Your task to perform on an android device: View the shopping cart on amazon.com. Search for usb-c on amazon.com, select the first entry, and add it to the cart. Image 0: 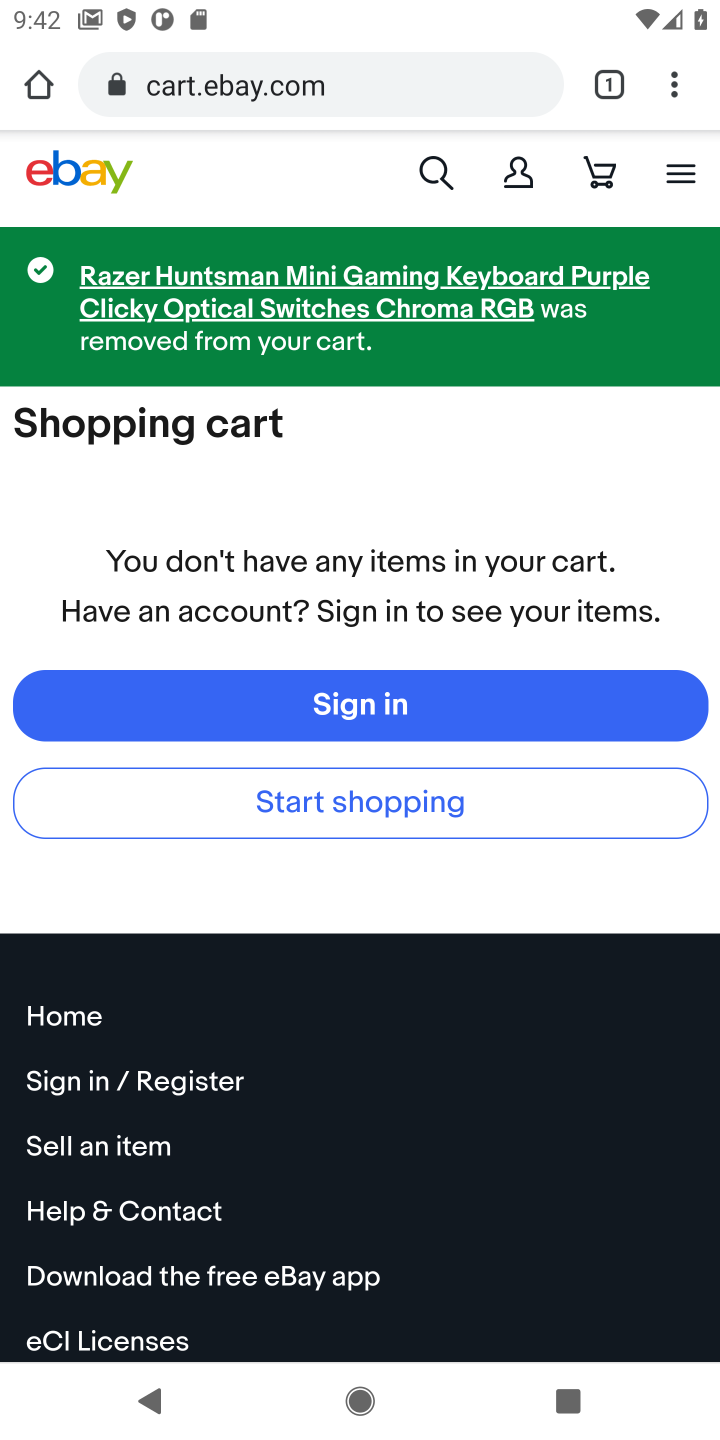
Step 0: press home button
Your task to perform on an android device: View the shopping cart on amazon.com. Search for usb-c on amazon.com, select the first entry, and add it to the cart. Image 1: 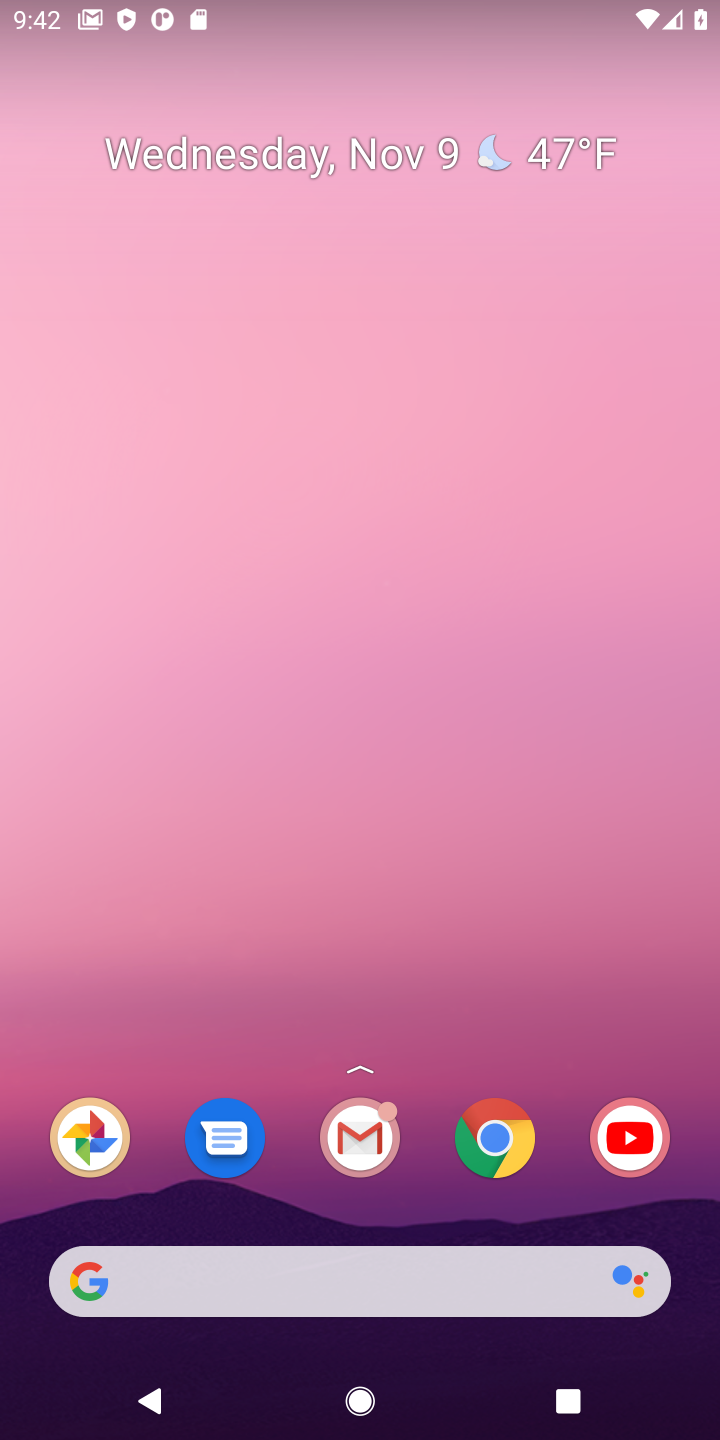
Step 1: drag from (424, 1228) to (459, 0)
Your task to perform on an android device: View the shopping cart on amazon.com. Search for usb-c on amazon.com, select the first entry, and add it to the cart. Image 2: 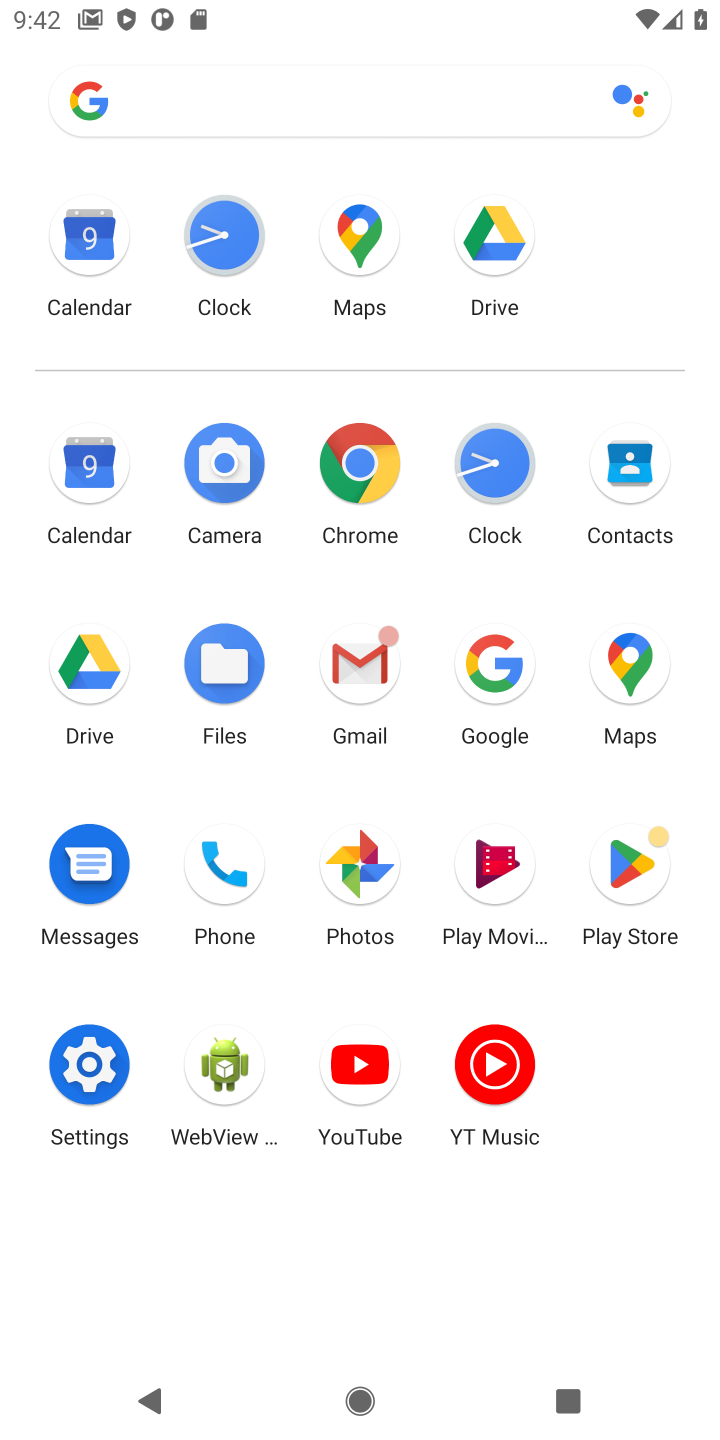
Step 2: click (345, 465)
Your task to perform on an android device: View the shopping cart on amazon.com. Search for usb-c on amazon.com, select the first entry, and add it to the cart. Image 3: 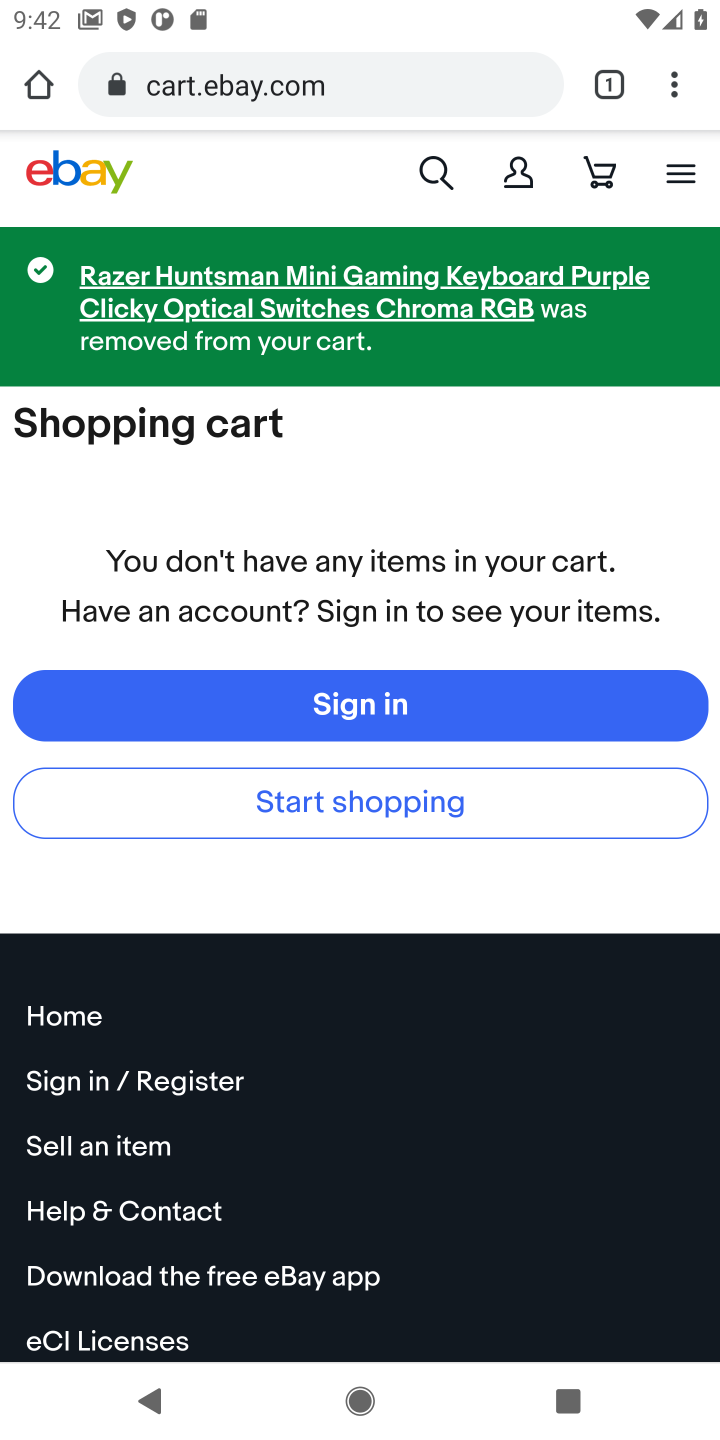
Step 3: click (309, 76)
Your task to perform on an android device: View the shopping cart on amazon.com. Search for usb-c on amazon.com, select the first entry, and add it to the cart. Image 4: 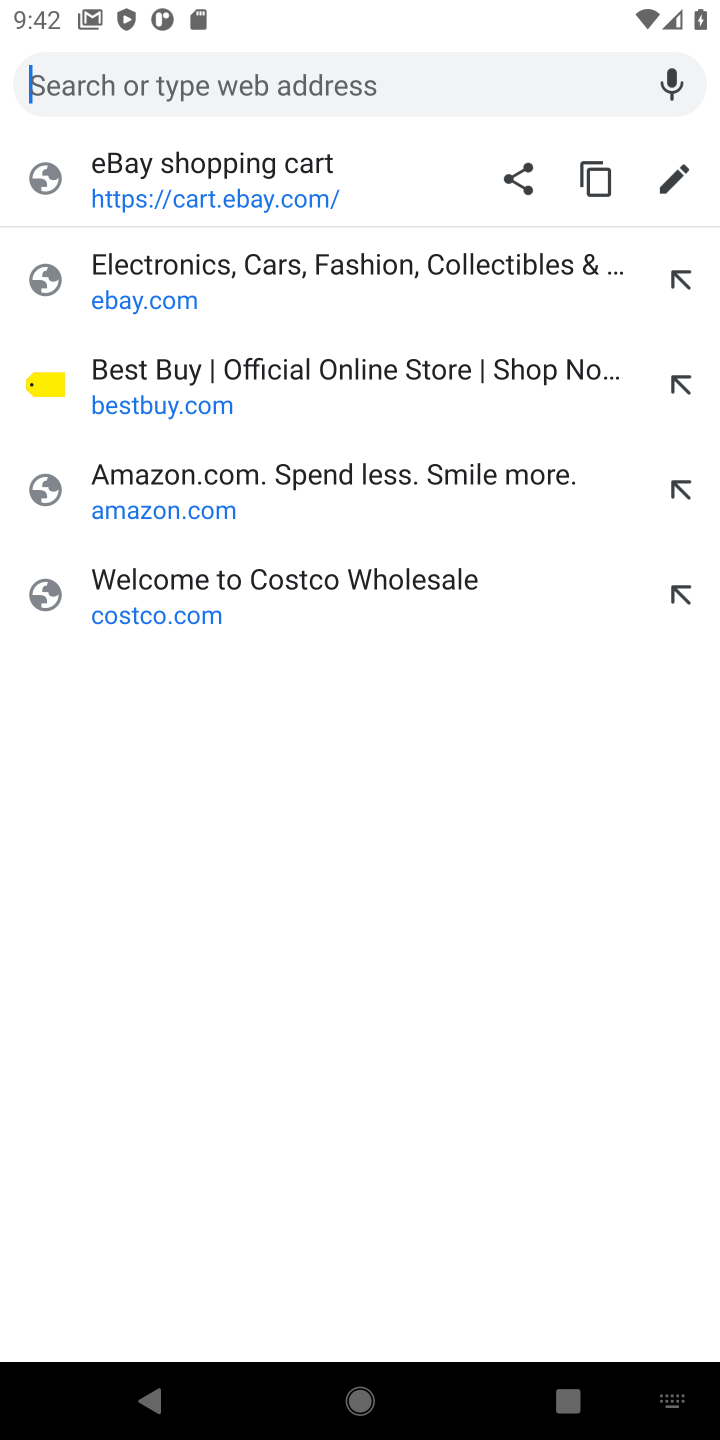
Step 4: type "amazon.com"
Your task to perform on an android device: View the shopping cart on amazon.com. Search for usb-c on amazon.com, select the first entry, and add it to the cart. Image 5: 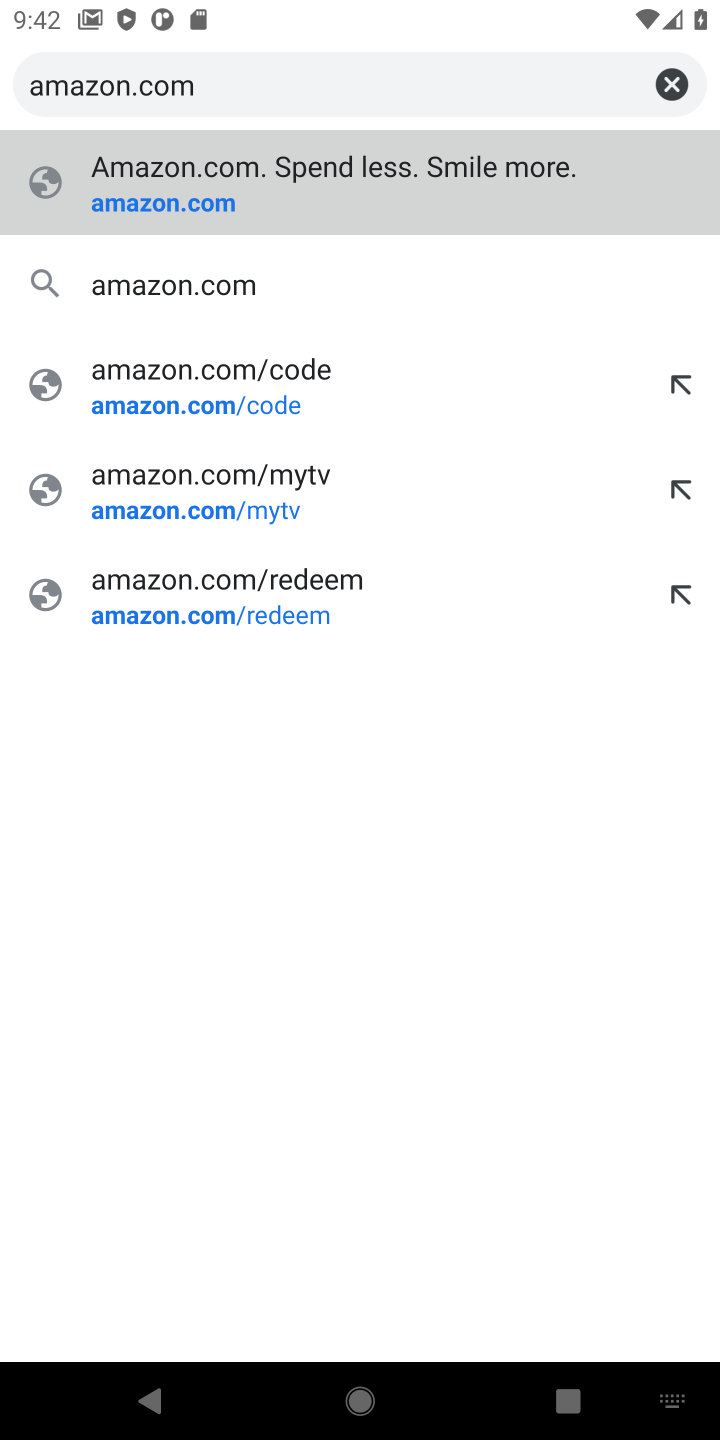
Step 5: press enter
Your task to perform on an android device: View the shopping cart on amazon.com. Search for usb-c on amazon.com, select the first entry, and add it to the cart. Image 6: 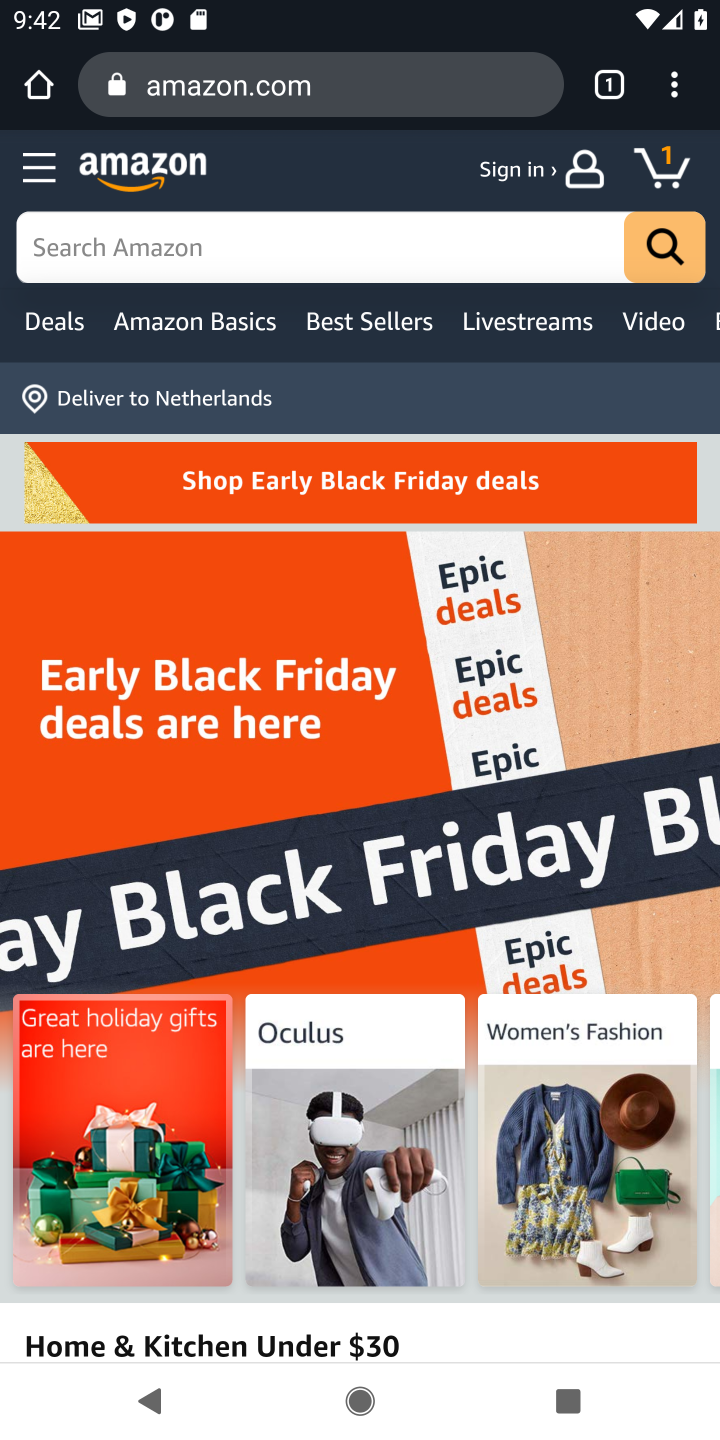
Step 6: click (677, 172)
Your task to perform on an android device: View the shopping cart on amazon.com. Search for usb-c on amazon.com, select the first entry, and add it to the cart. Image 7: 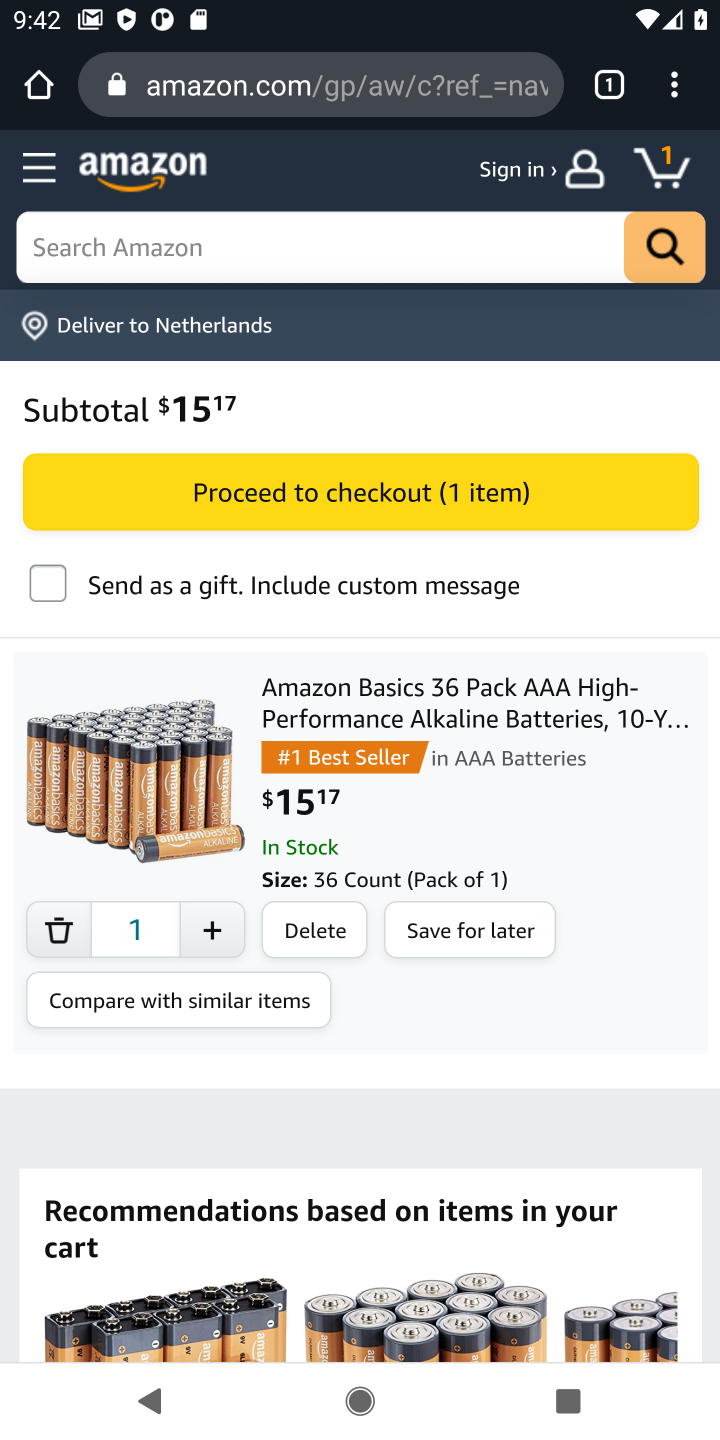
Step 7: click (676, 164)
Your task to perform on an android device: View the shopping cart on amazon.com. Search for usb-c on amazon.com, select the first entry, and add it to the cart. Image 8: 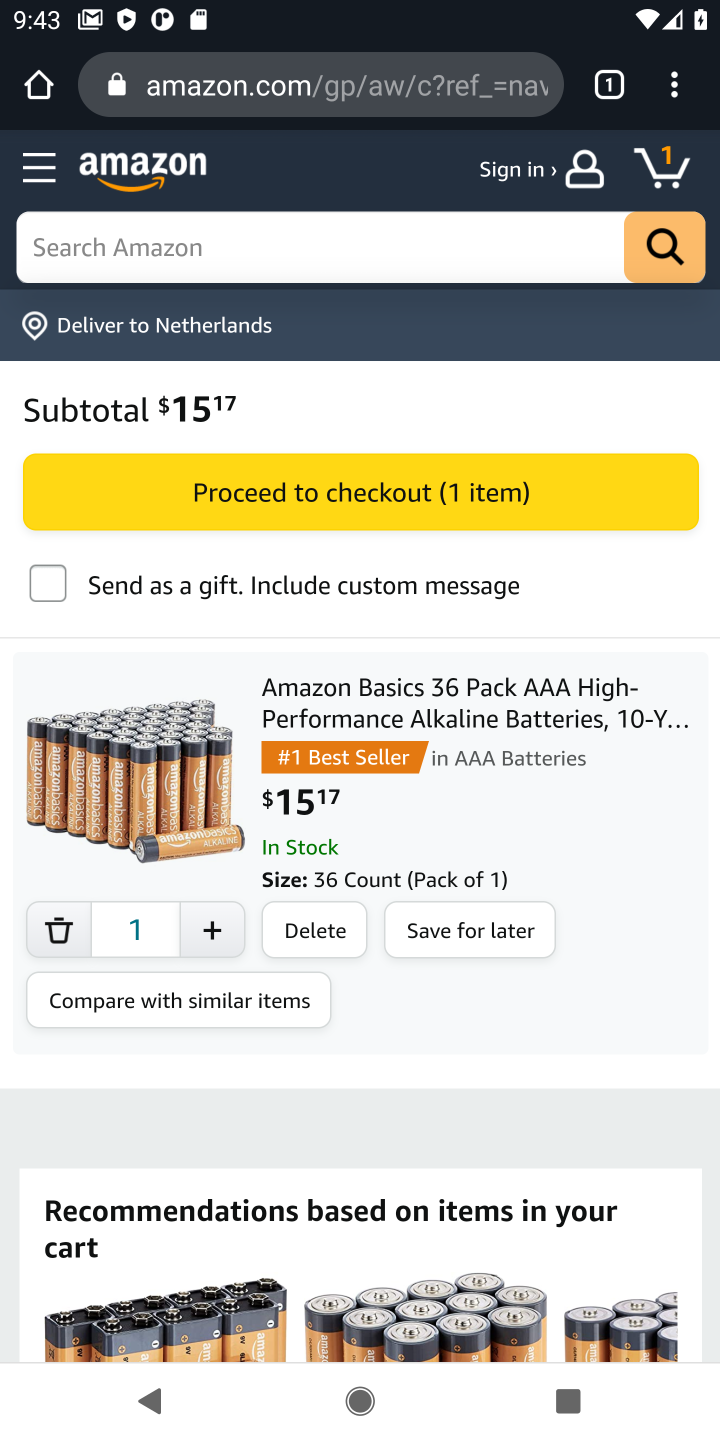
Step 8: click (467, 230)
Your task to perform on an android device: View the shopping cart on amazon.com. Search for usb-c on amazon.com, select the first entry, and add it to the cart. Image 9: 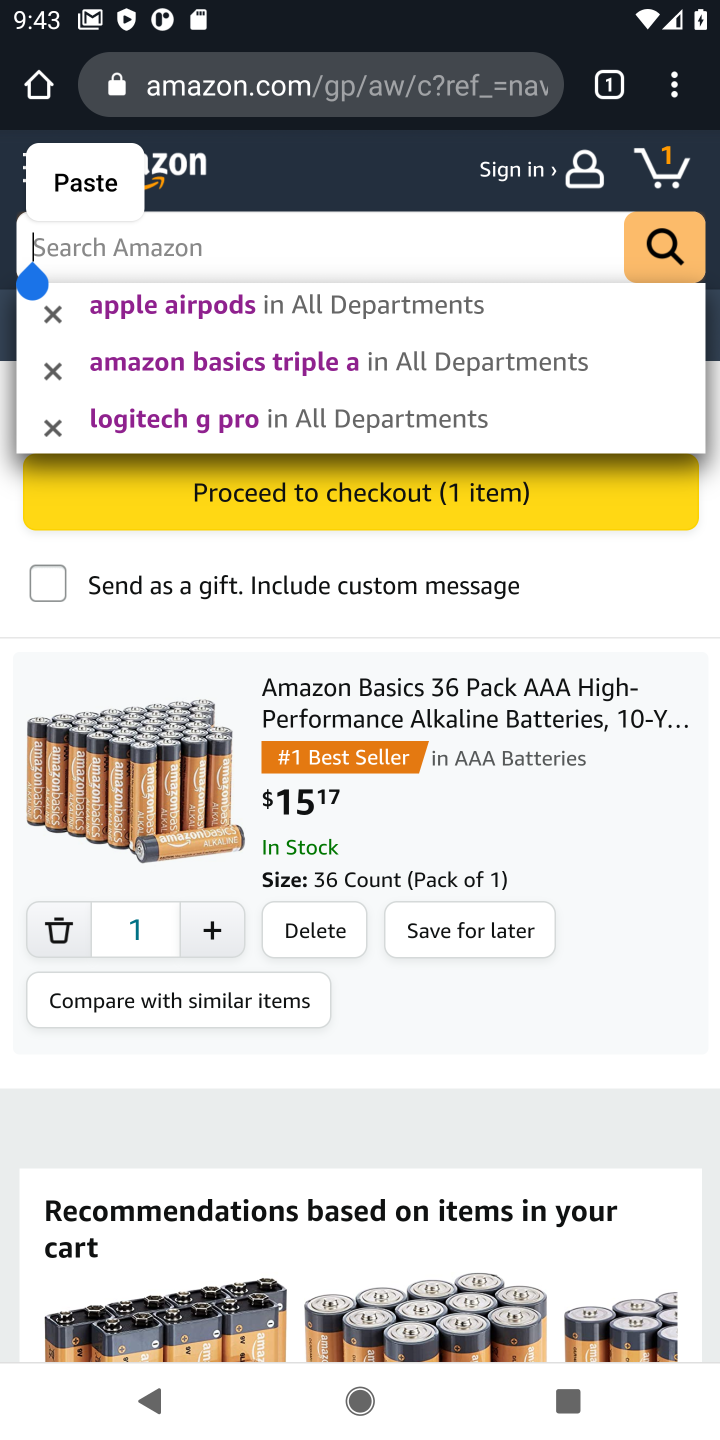
Step 9: type "usb-c"
Your task to perform on an android device: View the shopping cart on amazon.com. Search for usb-c on amazon.com, select the first entry, and add it to the cart. Image 10: 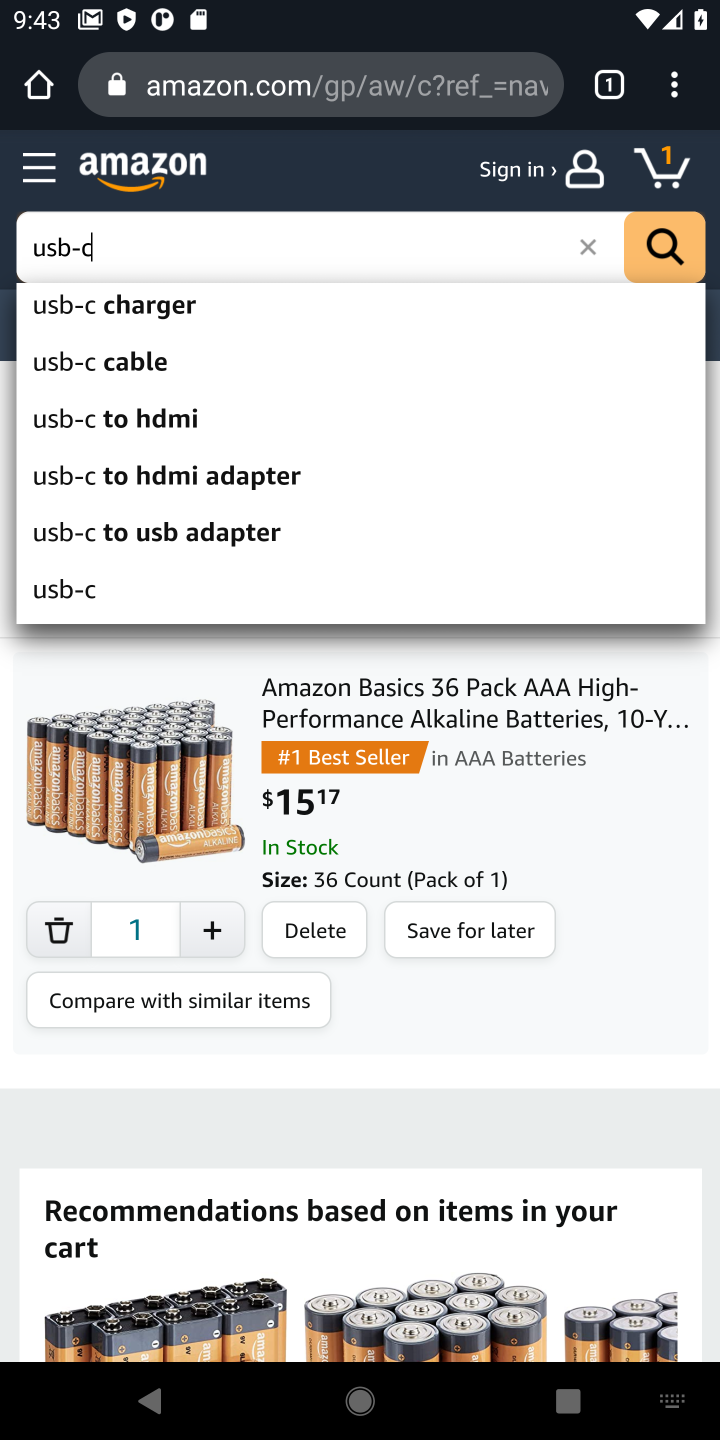
Step 10: press enter
Your task to perform on an android device: View the shopping cart on amazon.com. Search for usb-c on amazon.com, select the first entry, and add it to the cart. Image 11: 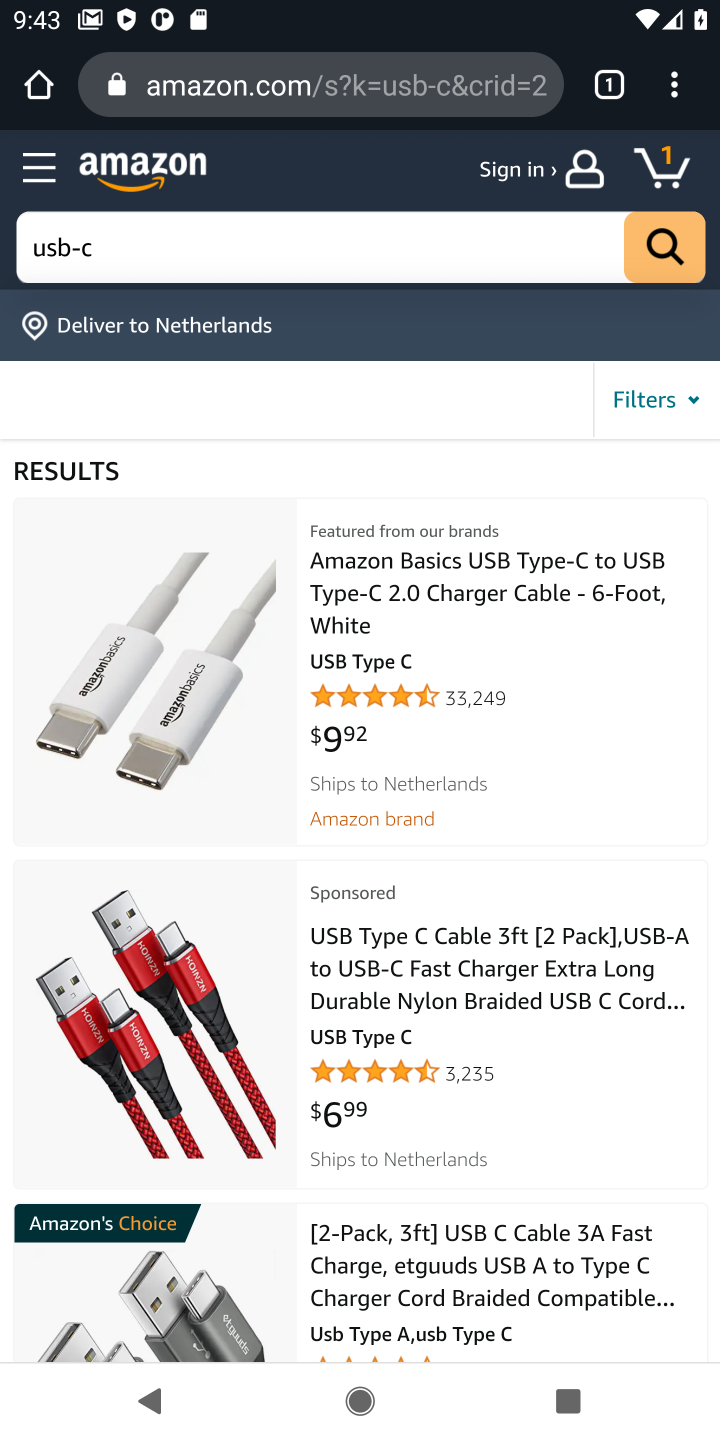
Step 11: drag from (437, 1142) to (493, 586)
Your task to perform on an android device: View the shopping cart on amazon.com. Search for usb-c on amazon.com, select the first entry, and add it to the cart. Image 12: 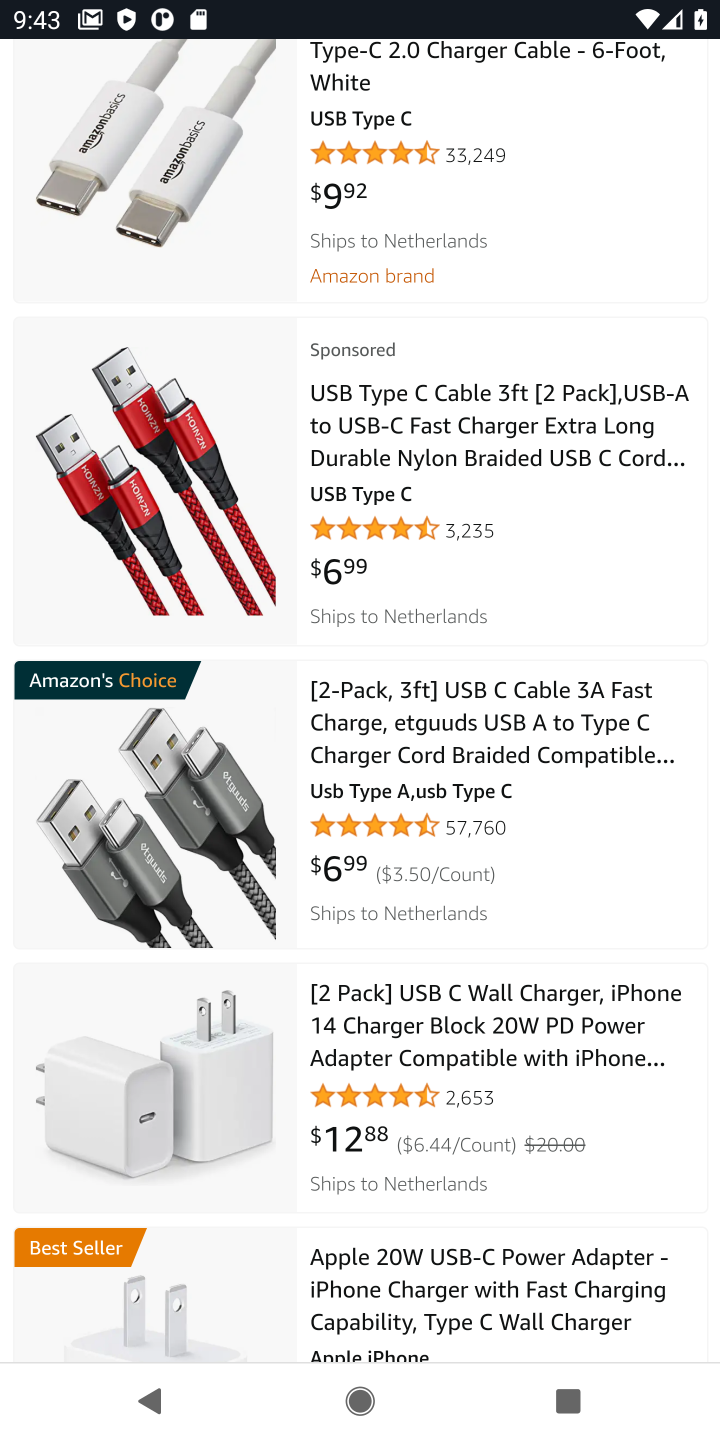
Step 12: click (415, 757)
Your task to perform on an android device: View the shopping cart on amazon.com. Search for usb-c on amazon.com, select the first entry, and add it to the cart. Image 13: 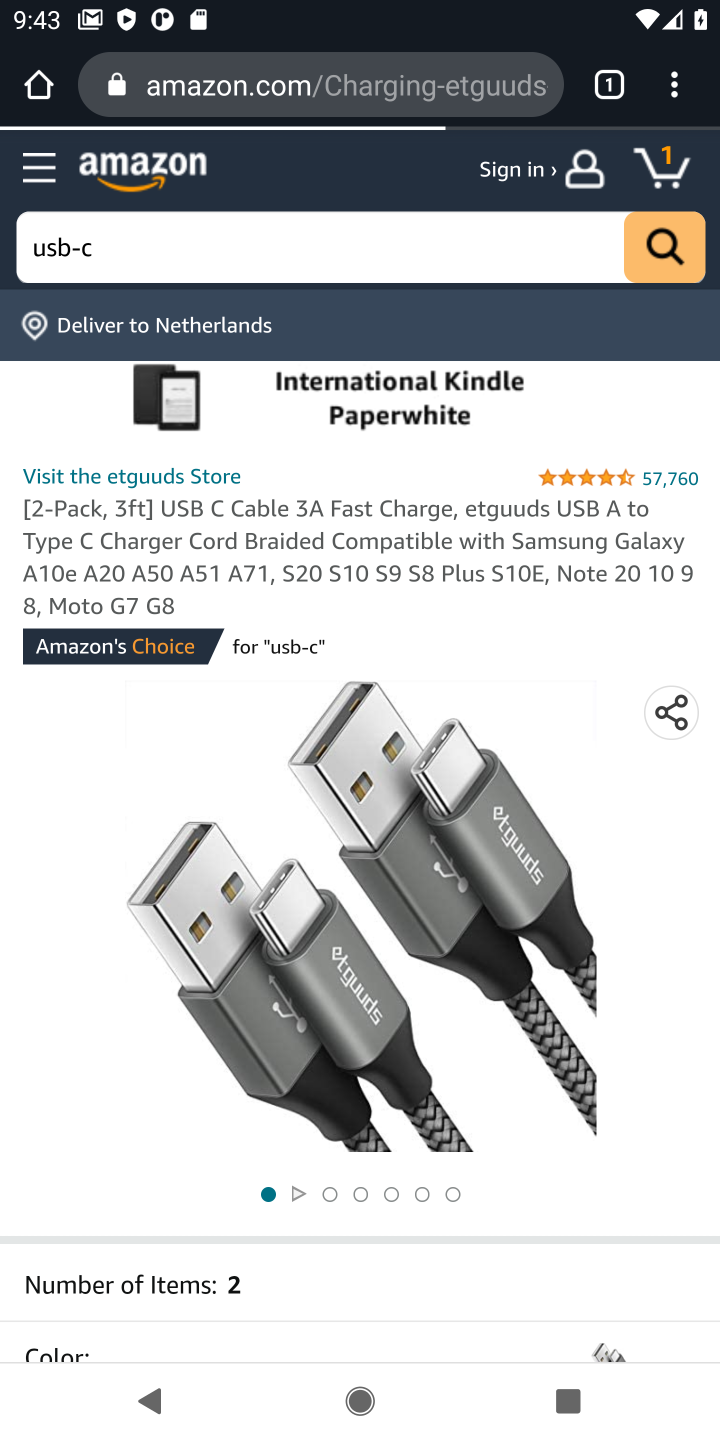
Step 13: drag from (365, 713) to (376, 302)
Your task to perform on an android device: View the shopping cart on amazon.com. Search for usb-c on amazon.com, select the first entry, and add it to the cart. Image 14: 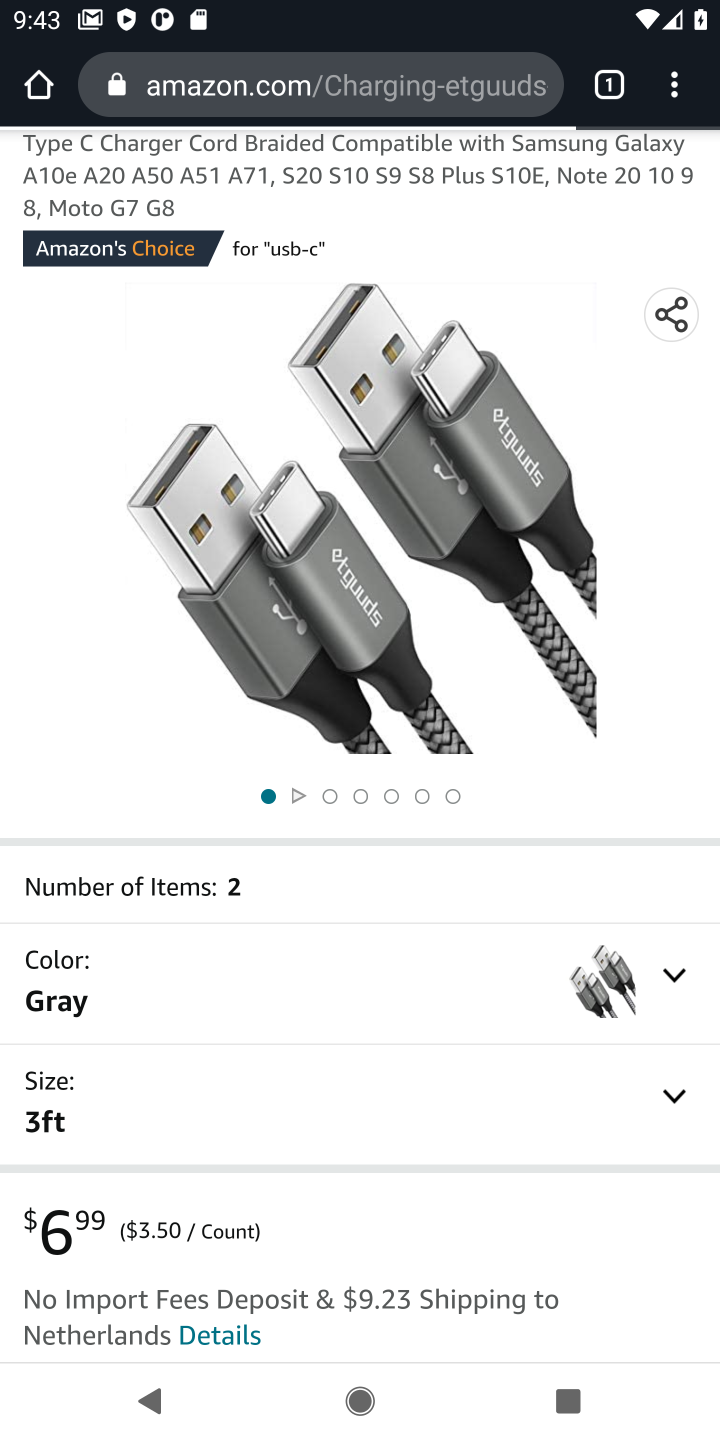
Step 14: drag from (406, 962) to (397, 163)
Your task to perform on an android device: View the shopping cart on amazon.com. Search for usb-c on amazon.com, select the first entry, and add it to the cart. Image 15: 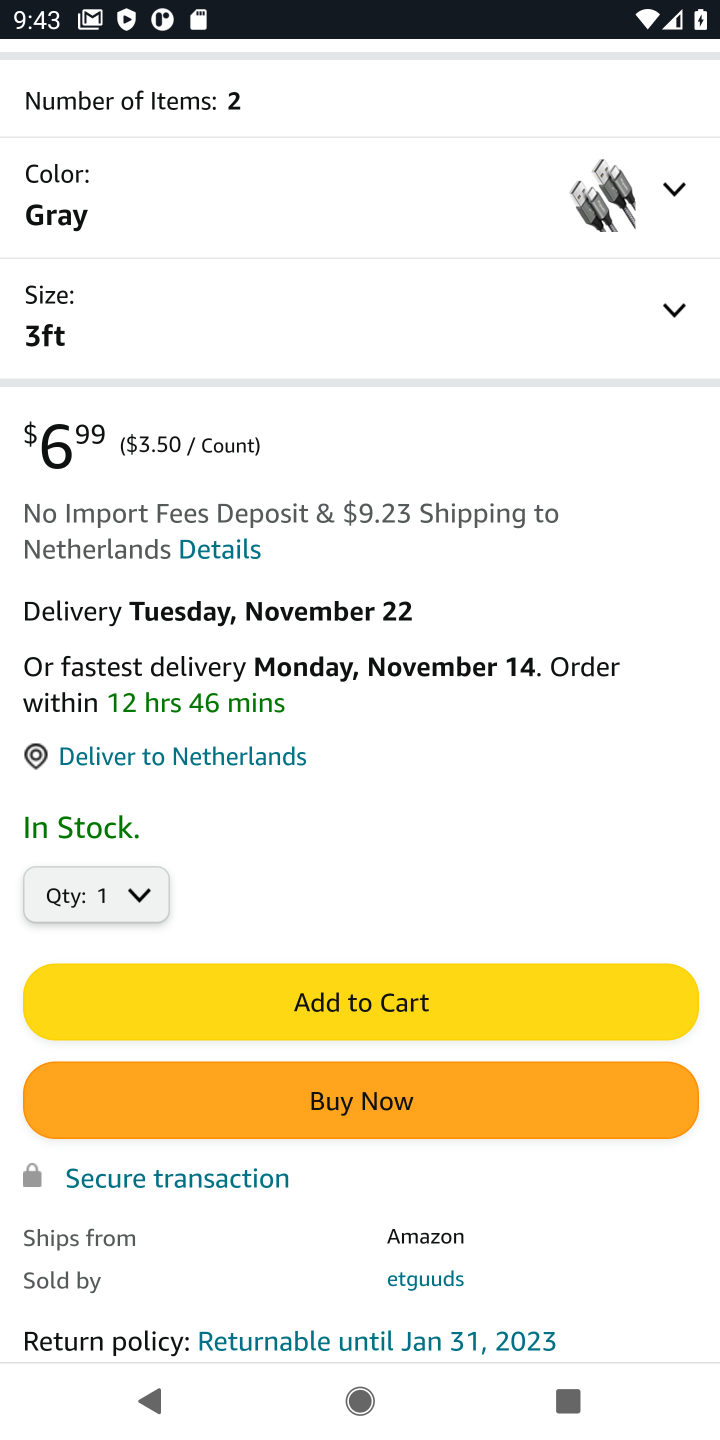
Step 15: click (451, 1004)
Your task to perform on an android device: View the shopping cart on amazon.com. Search for usb-c on amazon.com, select the first entry, and add it to the cart. Image 16: 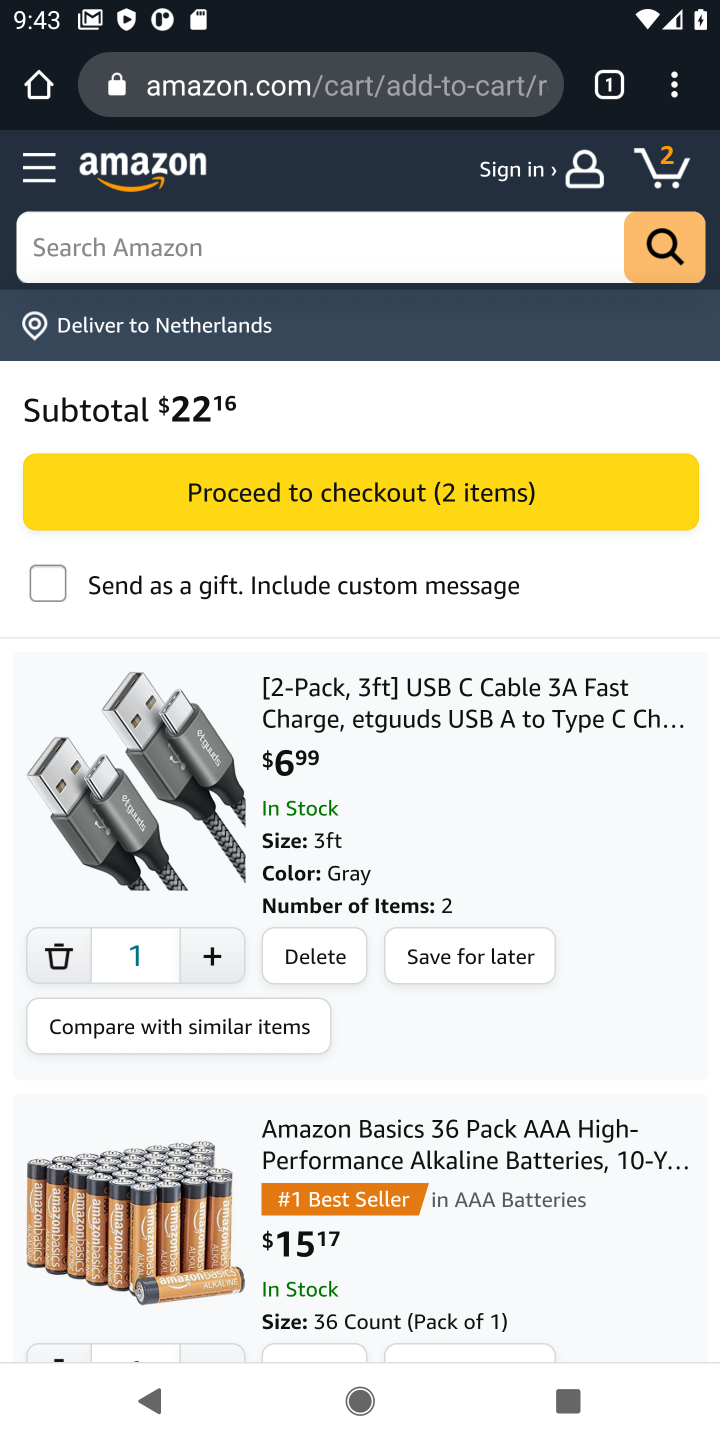
Step 16: task complete